Your task to perform on an android device: open app "Skype" (install if not already installed) and enter user name: "rumor@gmail.com" and password: "kinsman" Image 0: 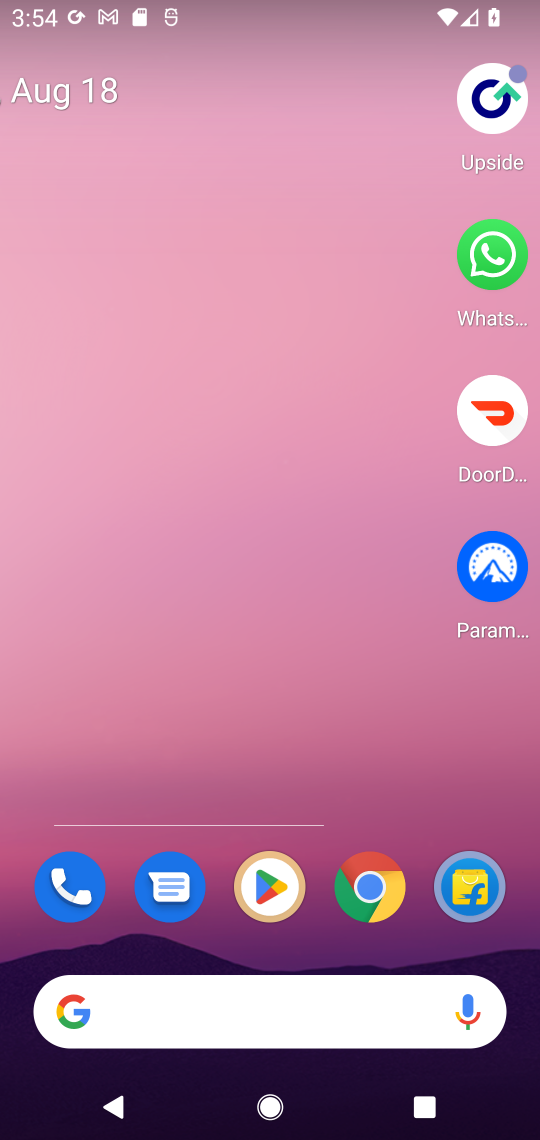
Step 0: press home button
Your task to perform on an android device: open app "Skype" (install if not already installed) and enter user name: "rumor@gmail.com" and password: "kinsman" Image 1: 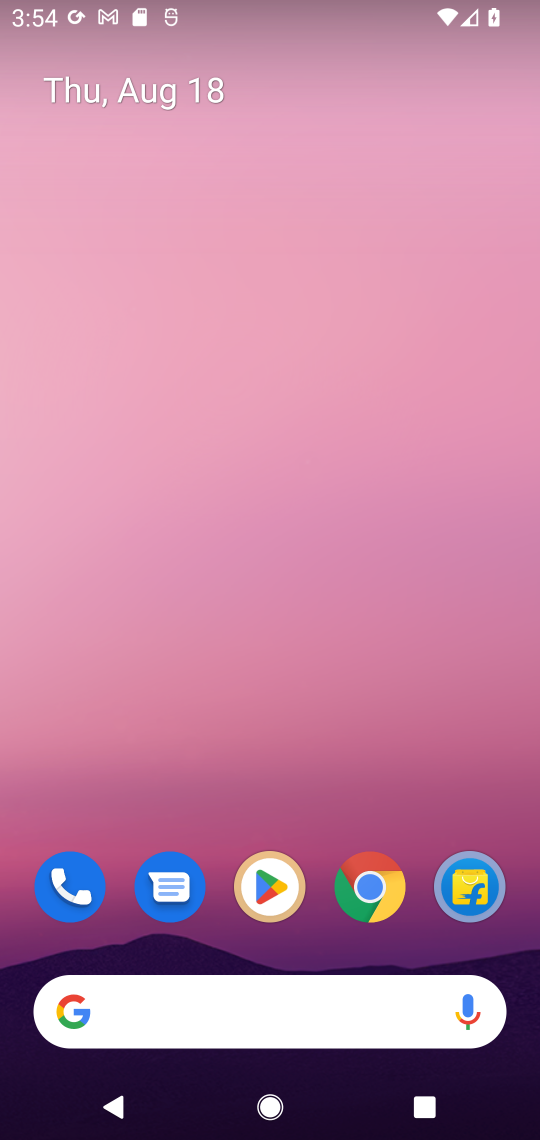
Step 1: click (264, 877)
Your task to perform on an android device: open app "Skype" (install if not already installed) and enter user name: "rumor@gmail.com" and password: "kinsman" Image 2: 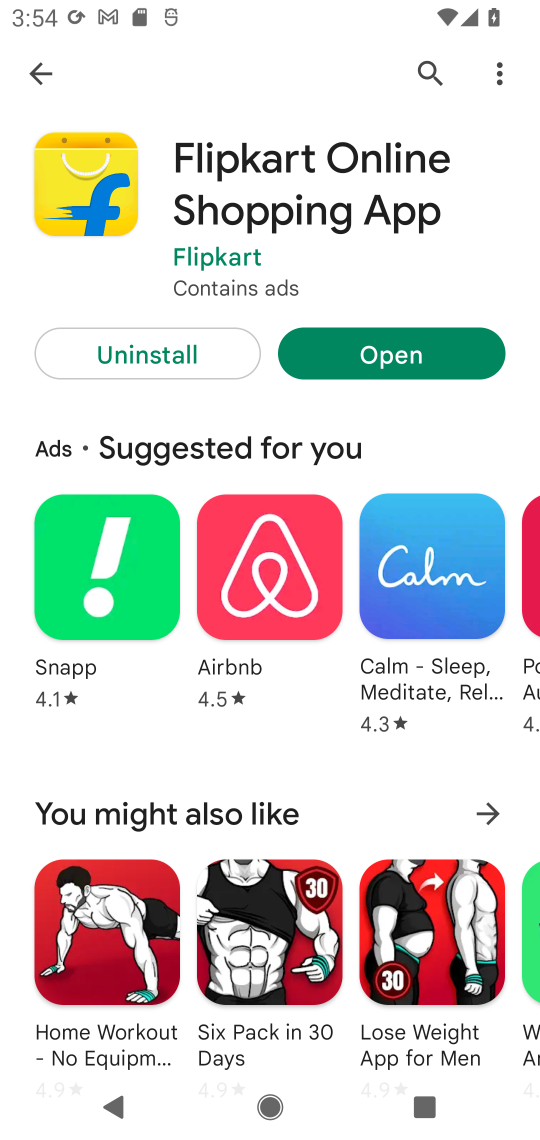
Step 2: click (423, 72)
Your task to perform on an android device: open app "Skype" (install if not already installed) and enter user name: "rumor@gmail.com" and password: "kinsman" Image 3: 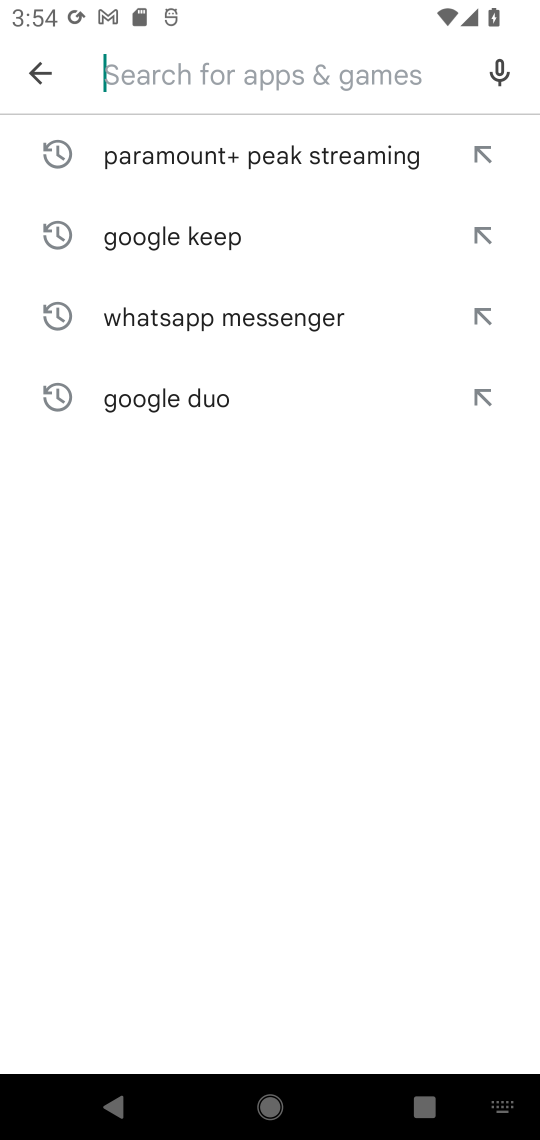
Step 3: click (159, 70)
Your task to perform on an android device: open app "Skype" (install if not already installed) and enter user name: "rumor@gmail.com" and password: "kinsman" Image 4: 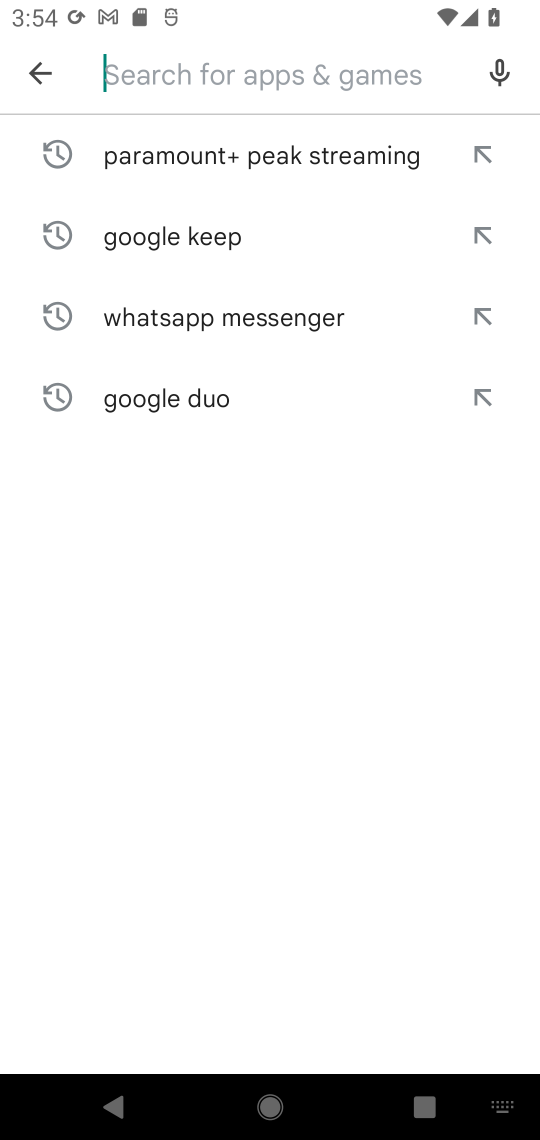
Step 4: type "Skype"
Your task to perform on an android device: open app "Skype" (install if not already installed) and enter user name: "rumor@gmail.com" and password: "kinsman" Image 5: 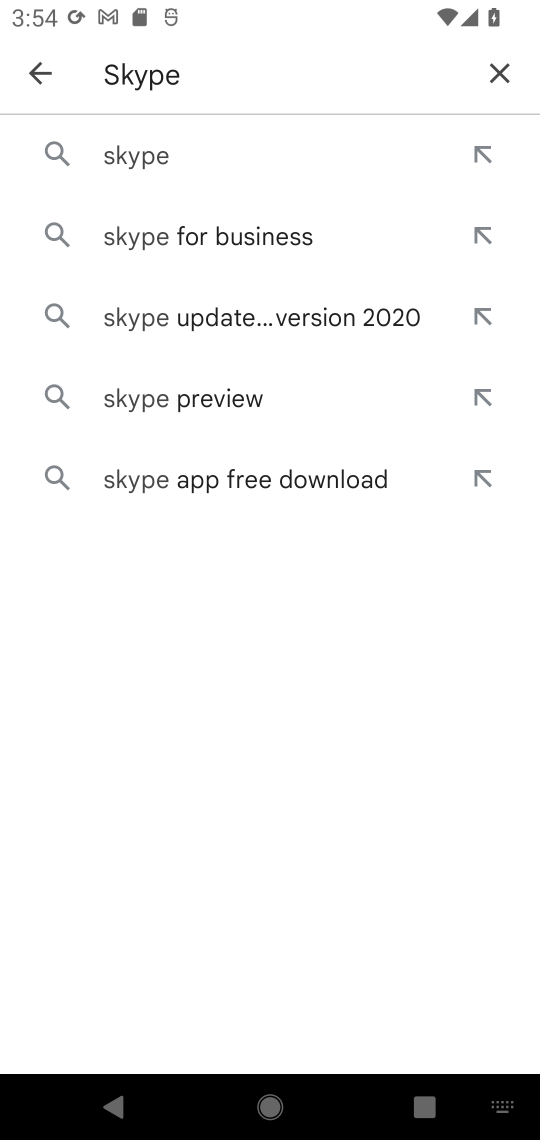
Step 5: click (176, 155)
Your task to perform on an android device: open app "Skype" (install if not already installed) and enter user name: "rumor@gmail.com" and password: "kinsman" Image 6: 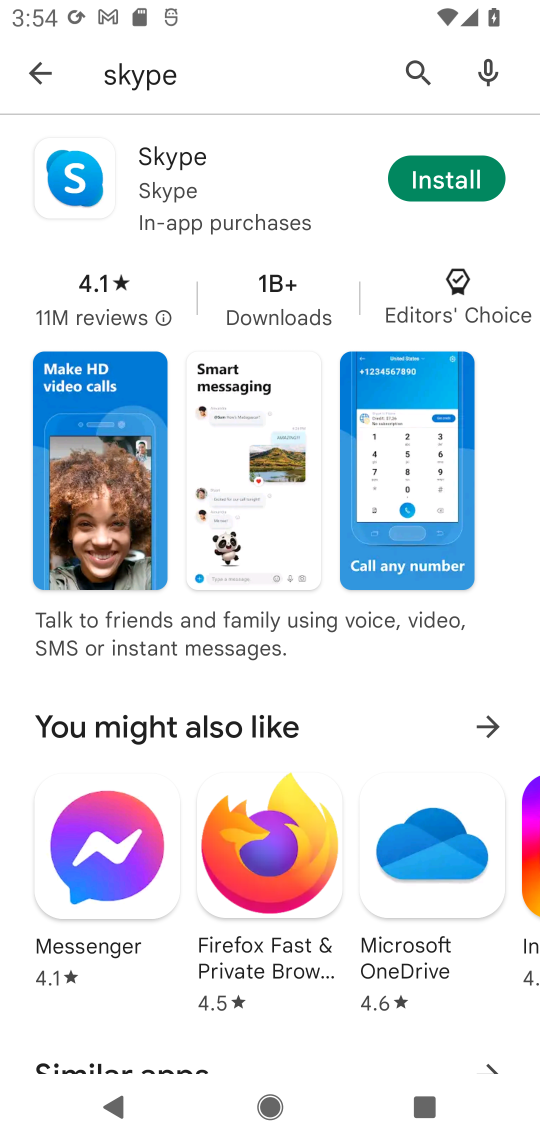
Step 6: click (448, 176)
Your task to perform on an android device: open app "Skype" (install if not already installed) and enter user name: "rumor@gmail.com" and password: "kinsman" Image 7: 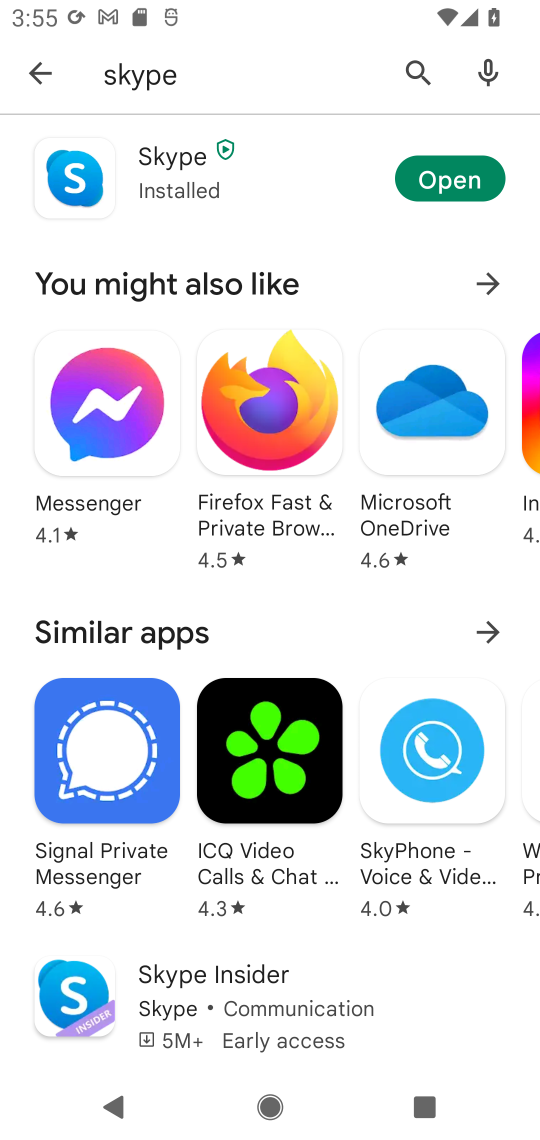
Step 7: click (442, 172)
Your task to perform on an android device: open app "Skype" (install if not already installed) and enter user name: "rumor@gmail.com" and password: "kinsman" Image 8: 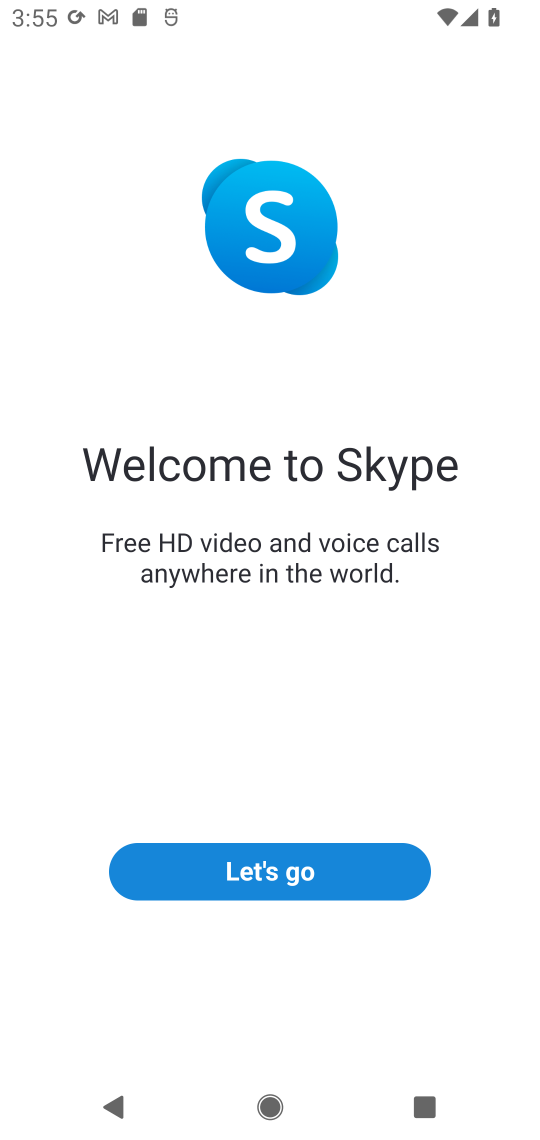
Step 8: click (266, 875)
Your task to perform on an android device: open app "Skype" (install if not already installed) and enter user name: "rumor@gmail.com" and password: "kinsman" Image 9: 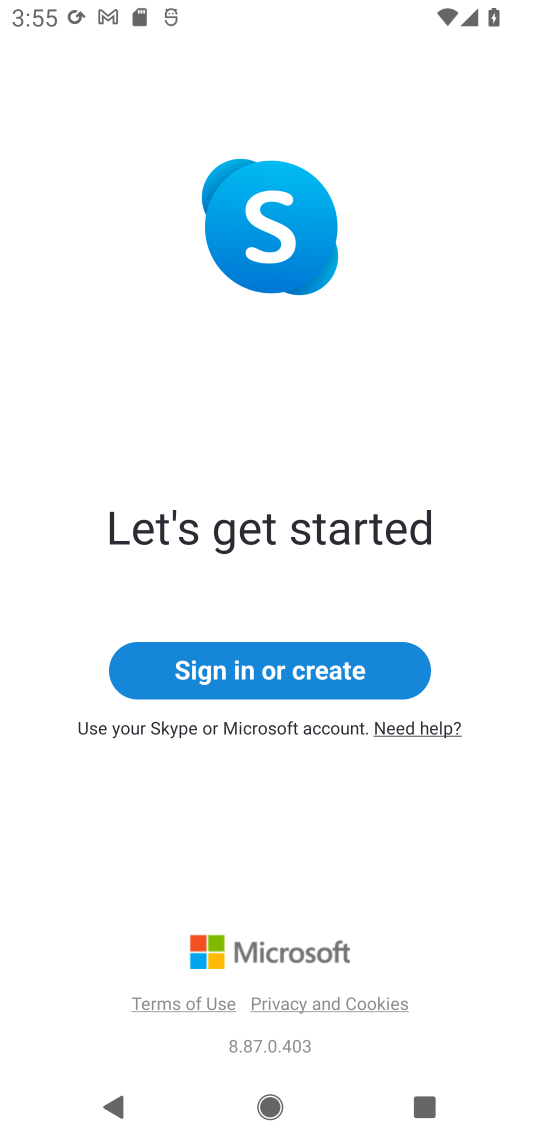
Step 9: click (261, 675)
Your task to perform on an android device: open app "Skype" (install if not already installed) and enter user name: "rumor@gmail.com" and password: "kinsman" Image 10: 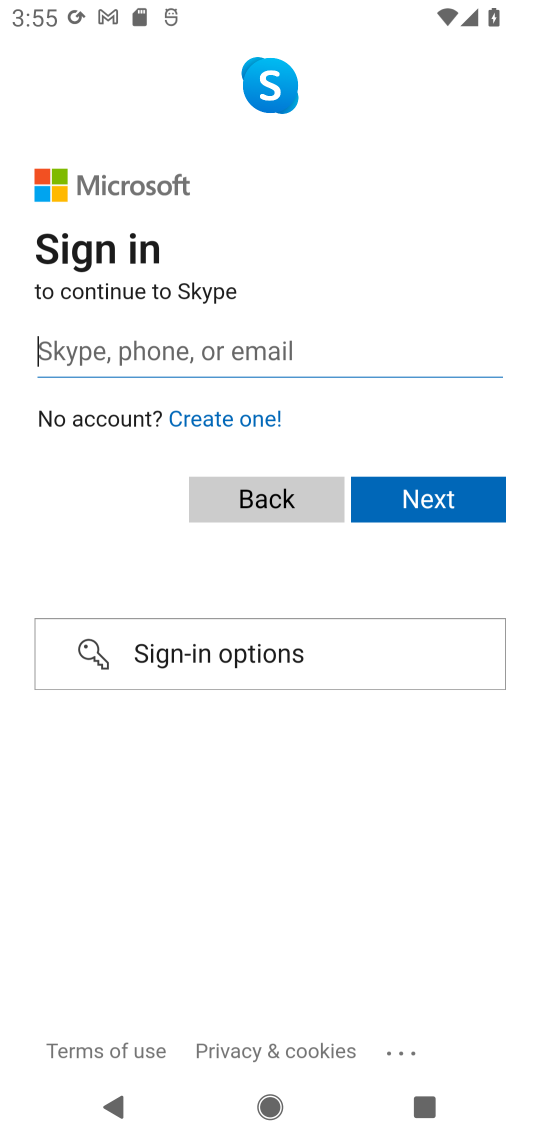
Step 10: click (101, 339)
Your task to perform on an android device: open app "Skype" (install if not already installed) and enter user name: "rumor@gmail.com" and password: "kinsman" Image 11: 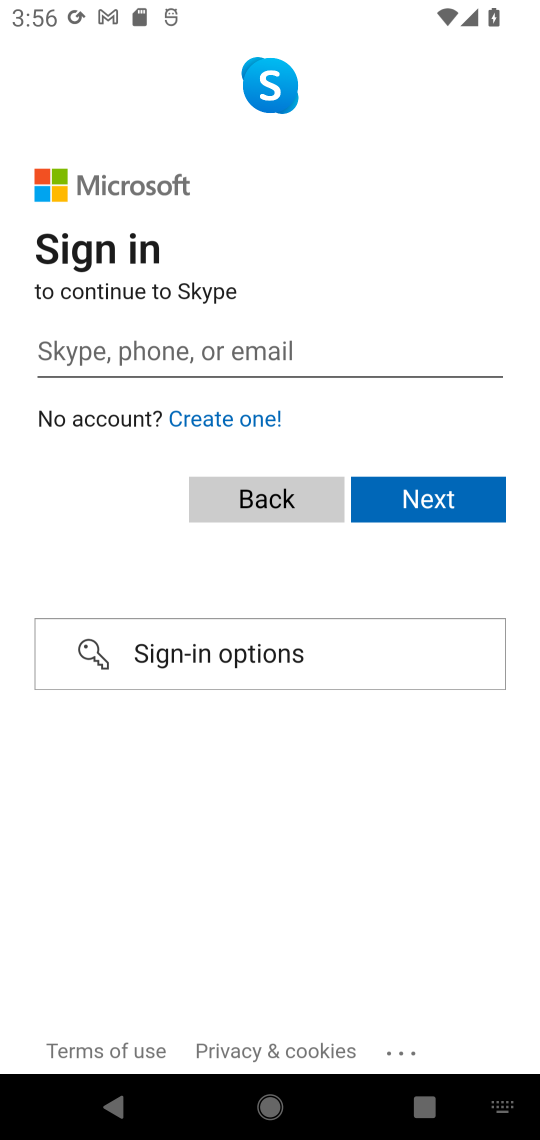
Step 11: type "rumor@gmail.com"
Your task to perform on an android device: open app "Skype" (install if not already installed) and enter user name: "rumor@gmail.com" and password: "kinsman" Image 12: 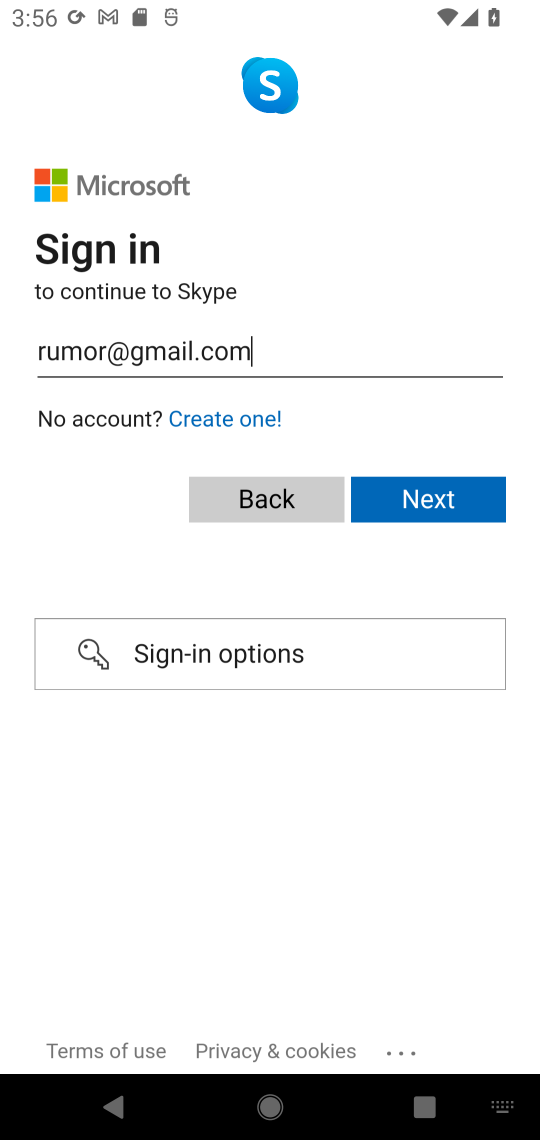
Step 12: click (450, 498)
Your task to perform on an android device: open app "Skype" (install if not already installed) and enter user name: "rumor@gmail.com" and password: "kinsman" Image 13: 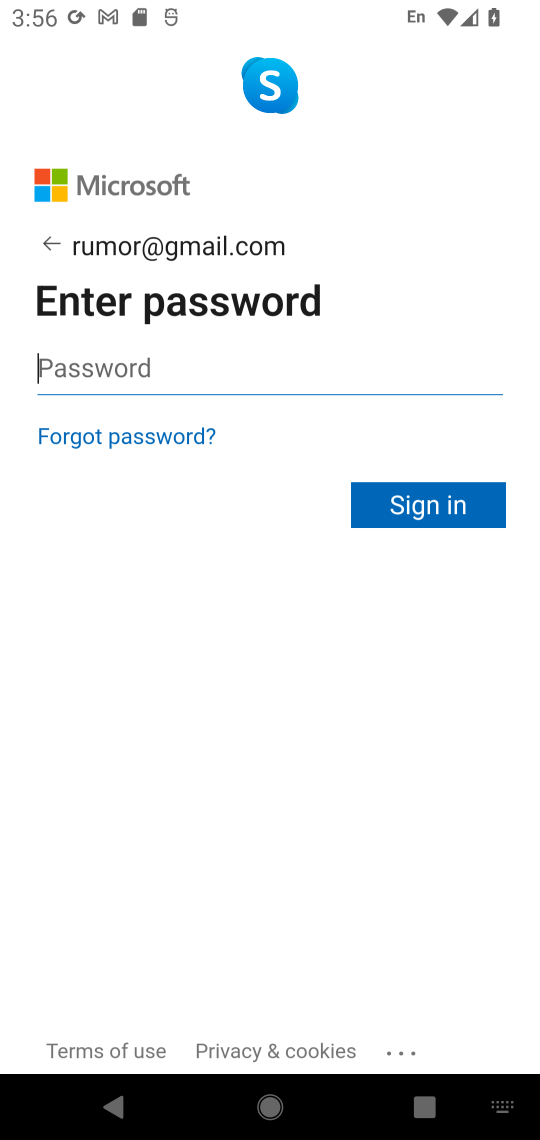
Step 13: click (131, 364)
Your task to perform on an android device: open app "Skype" (install if not already installed) and enter user name: "rumor@gmail.com" and password: "kinsman" Image 14: 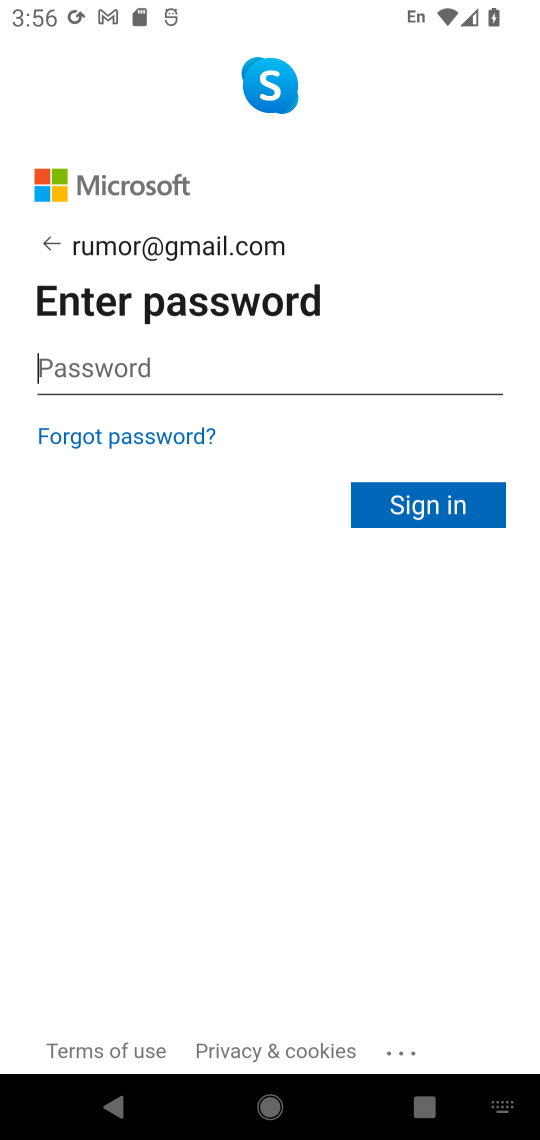
Step 14: type "kinsman"
Your task to perform on an android device: open app "Skype" (install if not already installed) and enter user name: "rumor@gmail.com" and password: "kinsman" Image 15: 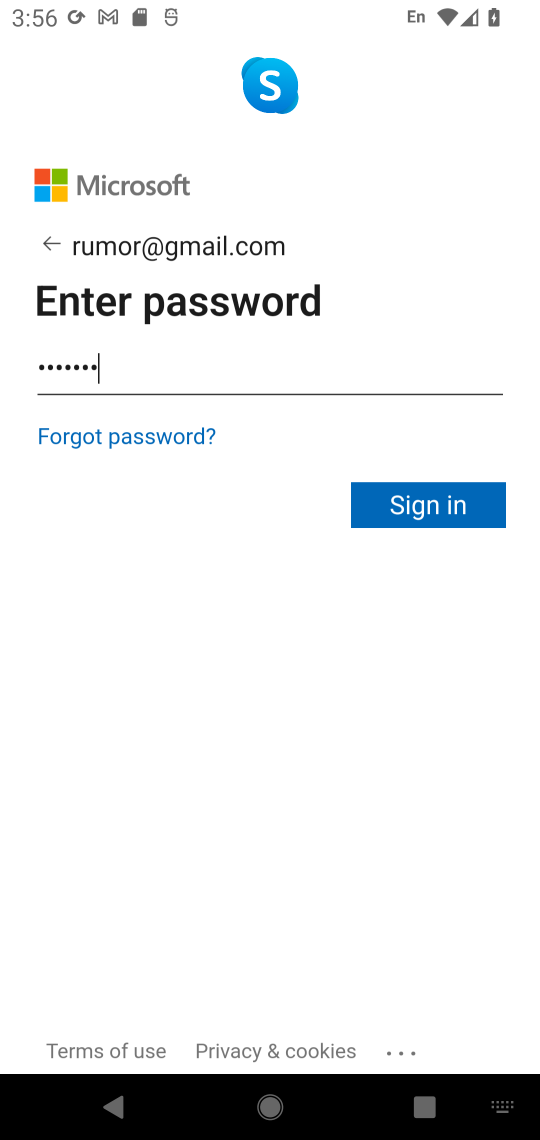
Step 15: click (430, 522)
Your task to perform on an android device: open app "Skype" (install if not already installed) and enter user name: "rumor@gmail.com" and password: "kinsman" Image 16: 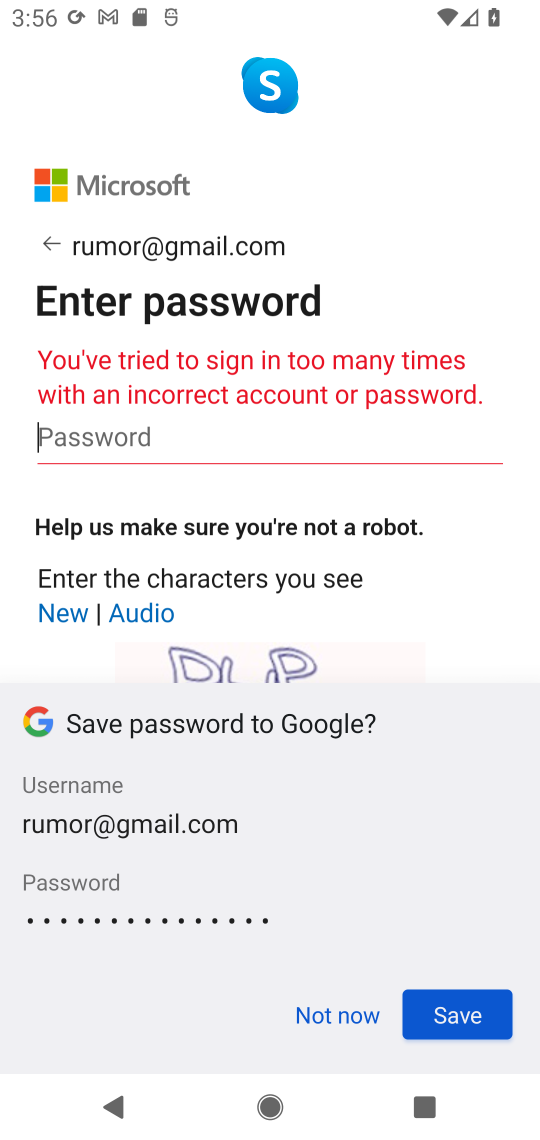
Step 16: task complete